Your task to perform on an android device: When is my next meeting? Image 0: 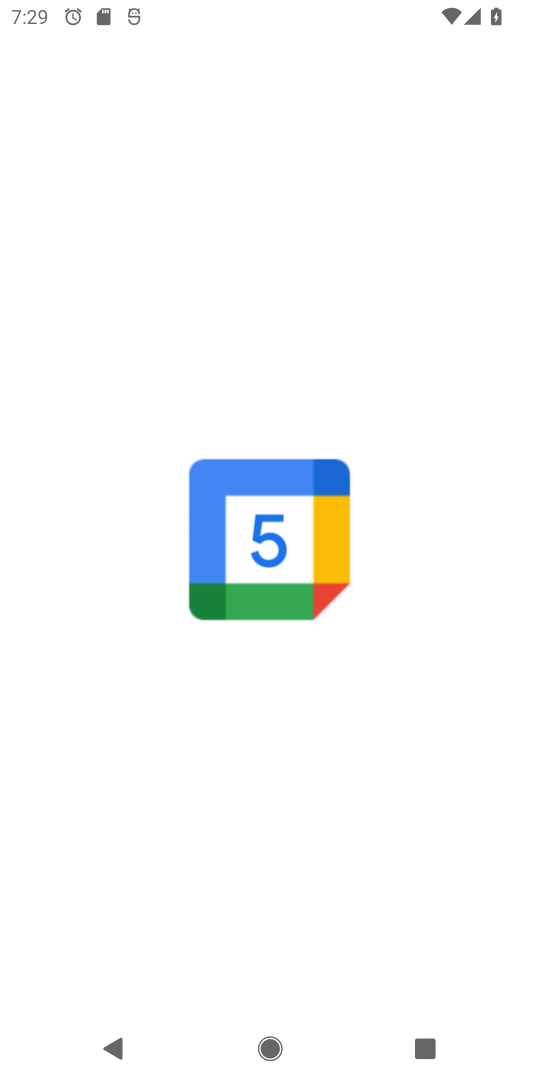
Step 0: drag from (354, 720) to (414, 502)
Your task to perform on an android device: When is my next meeting? Image 1: 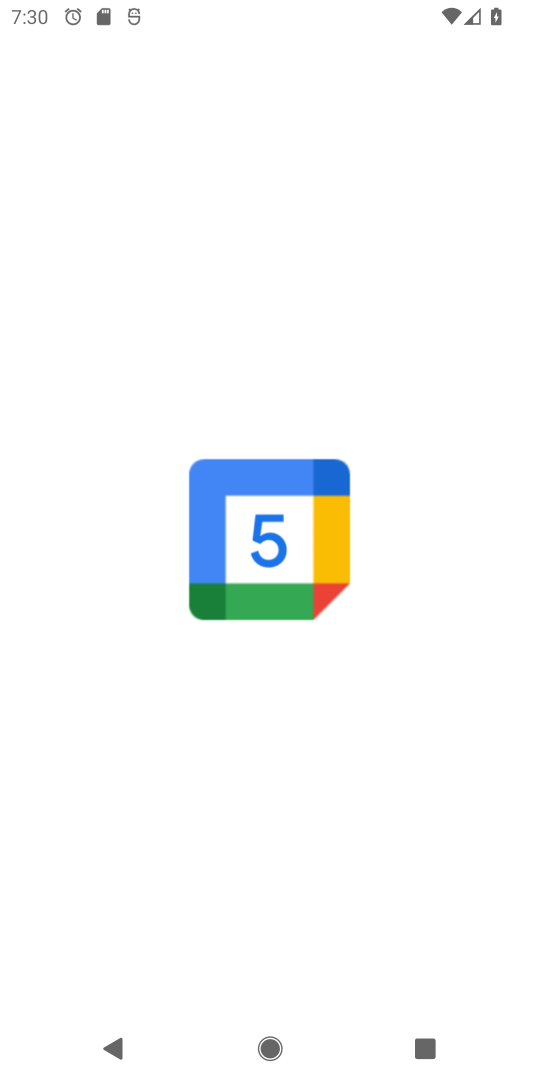
Step 1: task complete